Your task to perform on an android device: change alarm snooze length Image 0: 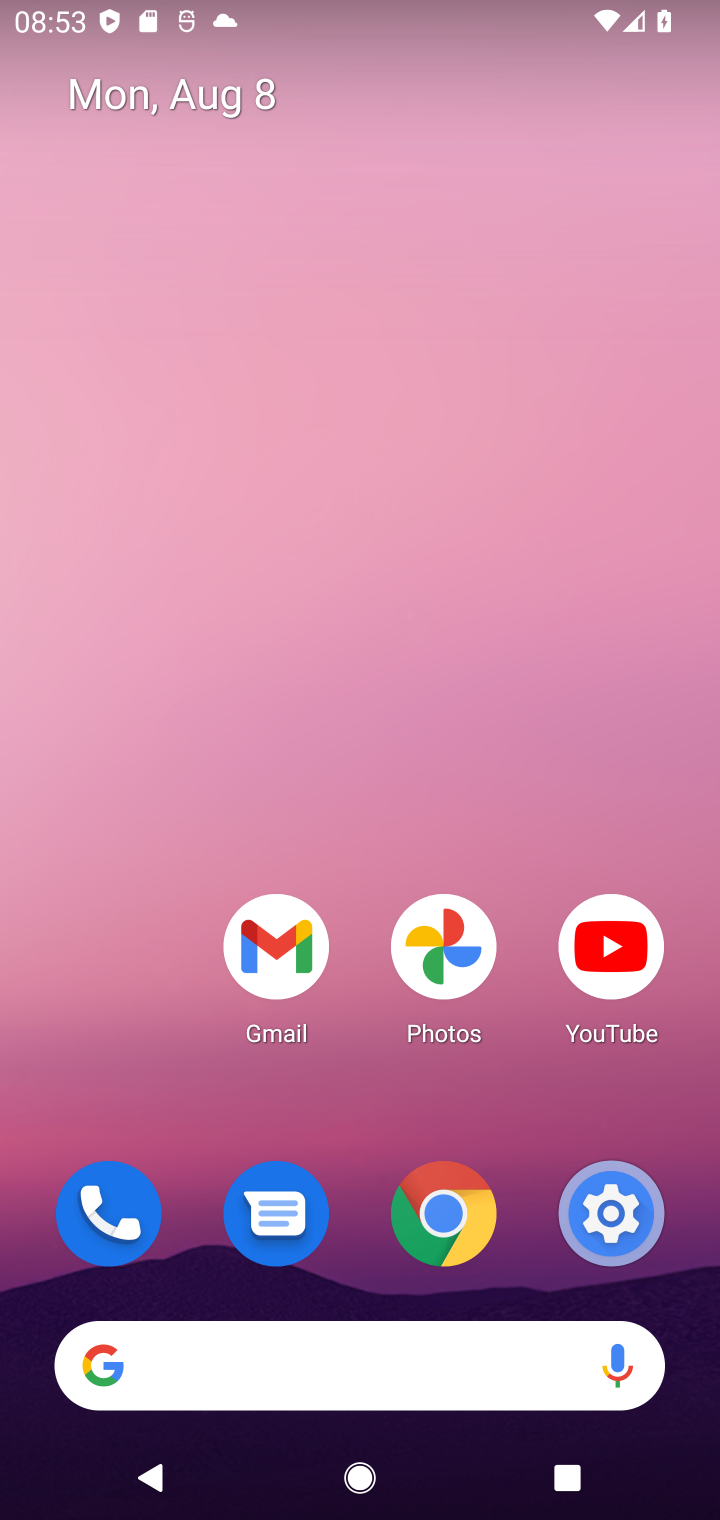
Step 0: drag from (340, 1128) to (335, 389)
Your task to perform on an android device: change alarm snooze length Image 1: 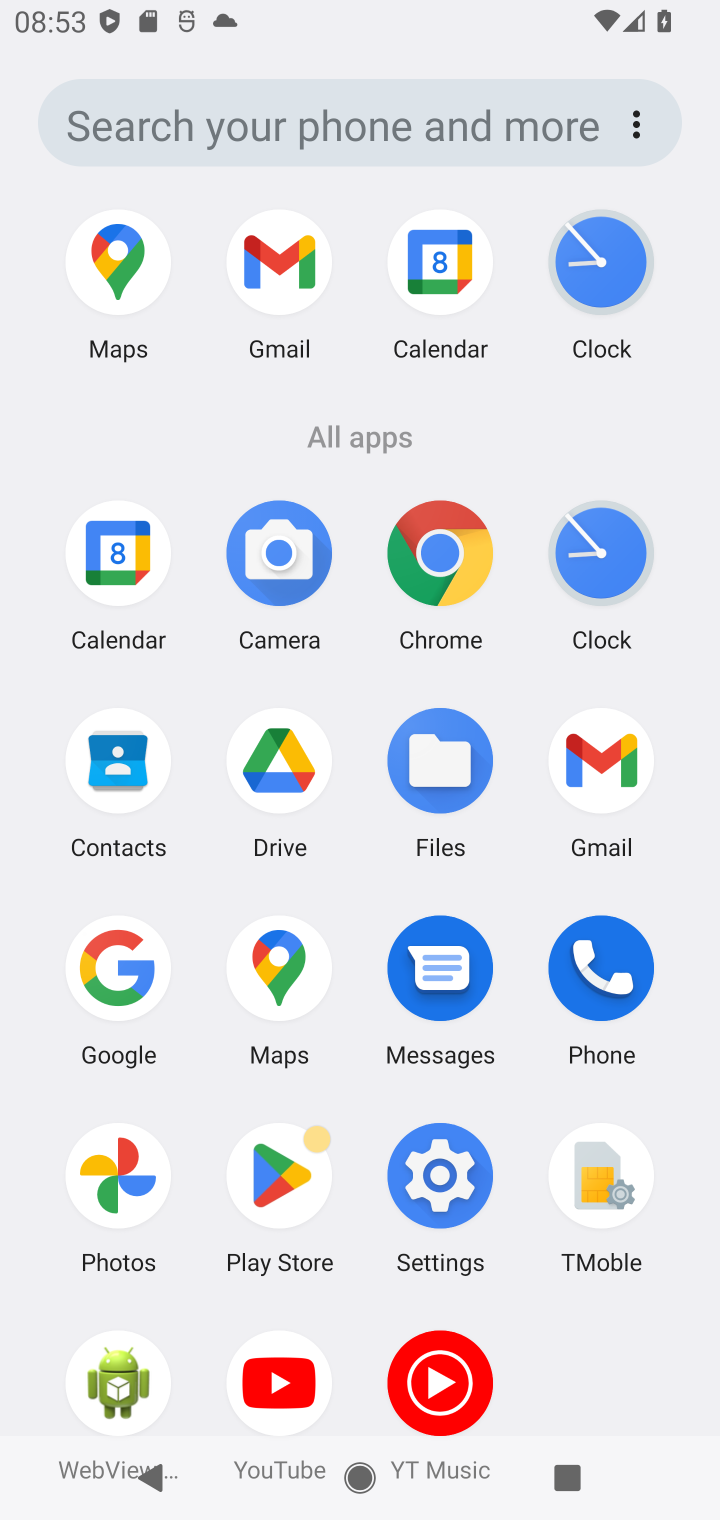
Step 1: click (618, 587)
Your task to perform on an android device: change alarm snooze length Image 2: 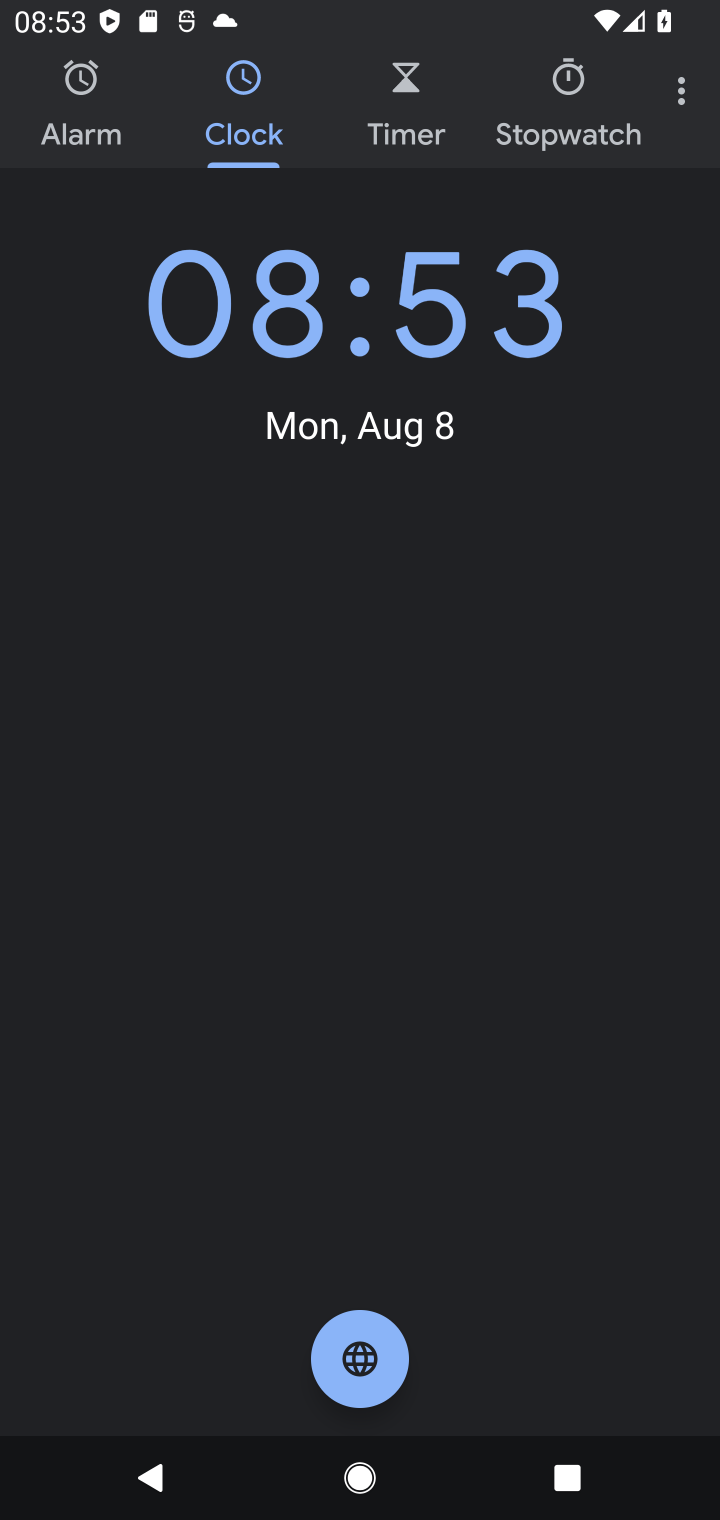
Step 2: click (677, 117)
Your task to perform on an android device: change alarm snooze length Image 3: 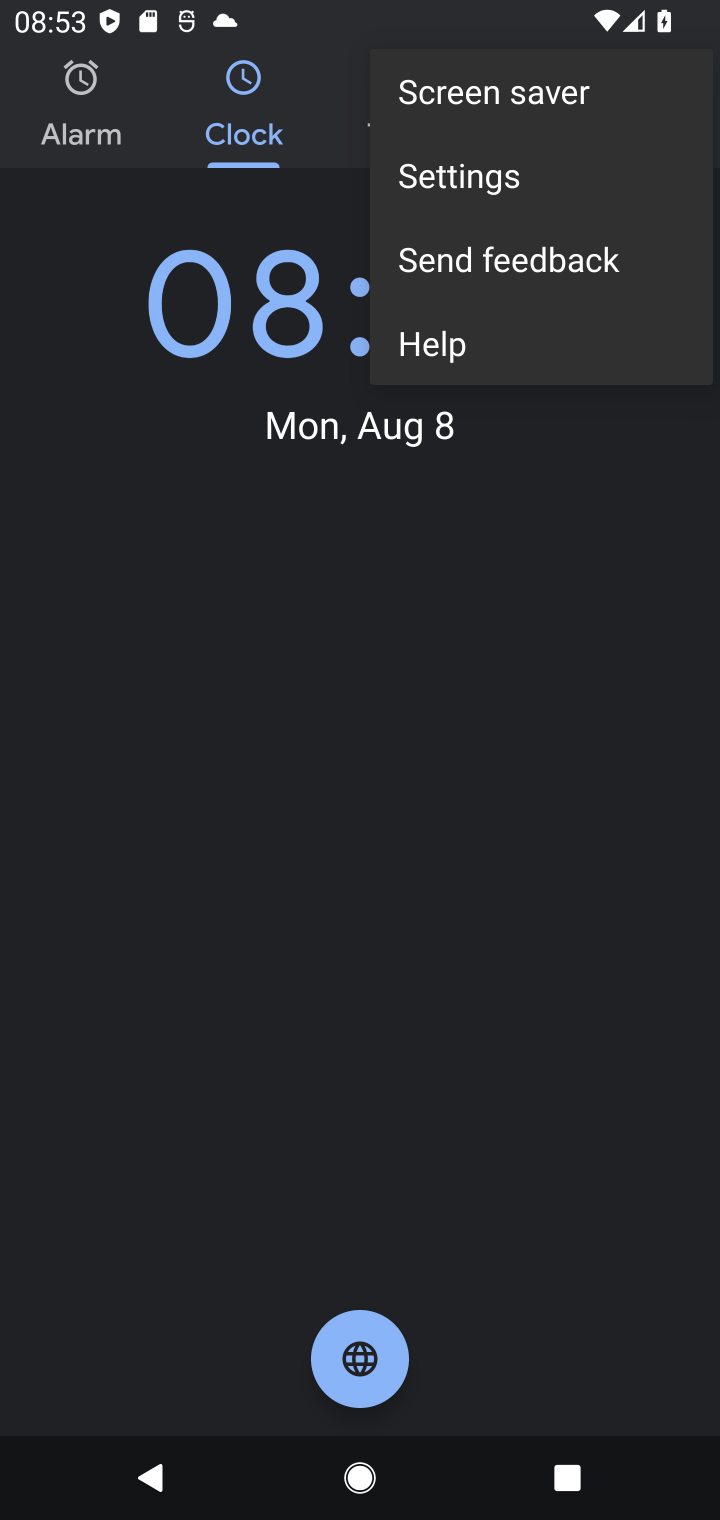
Step 3: click (530, 184)
Your task to perform on an android device: change alarm snooze length Image 4: 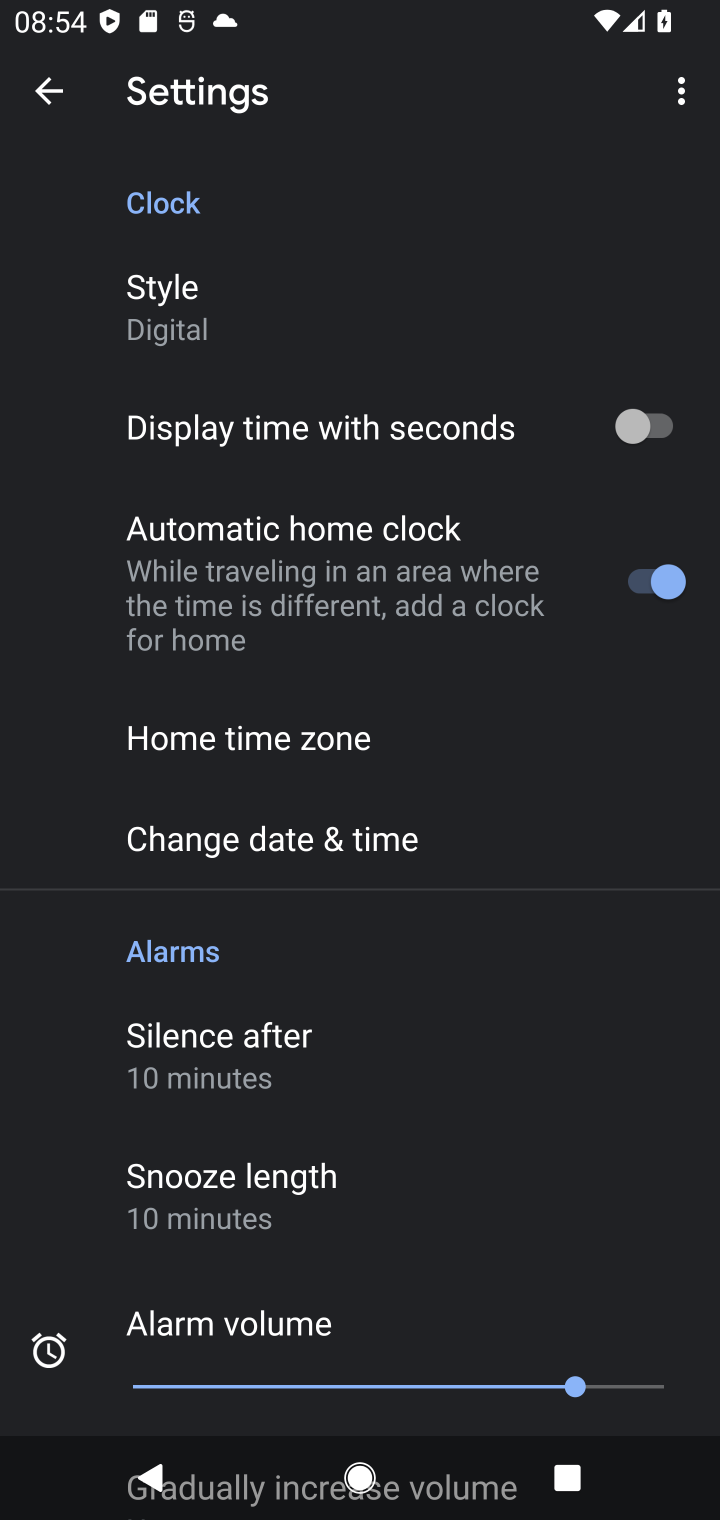
Step 4: click (356, 1226)
Your task to perform on an android device: change alarm snooze length Image 5: 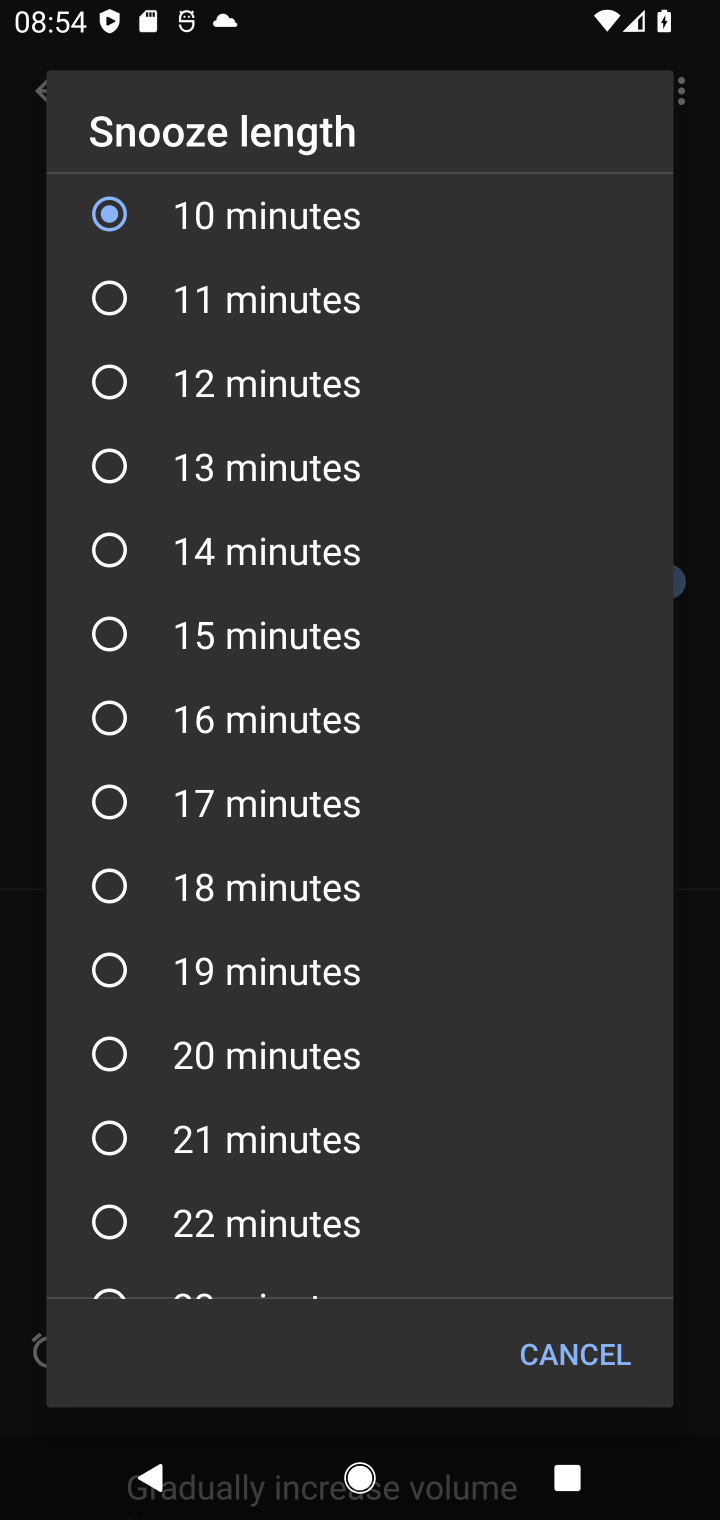
Step 5: click (319, 393)
Your task to perform on an android device: change alarm snooze length Image 6: 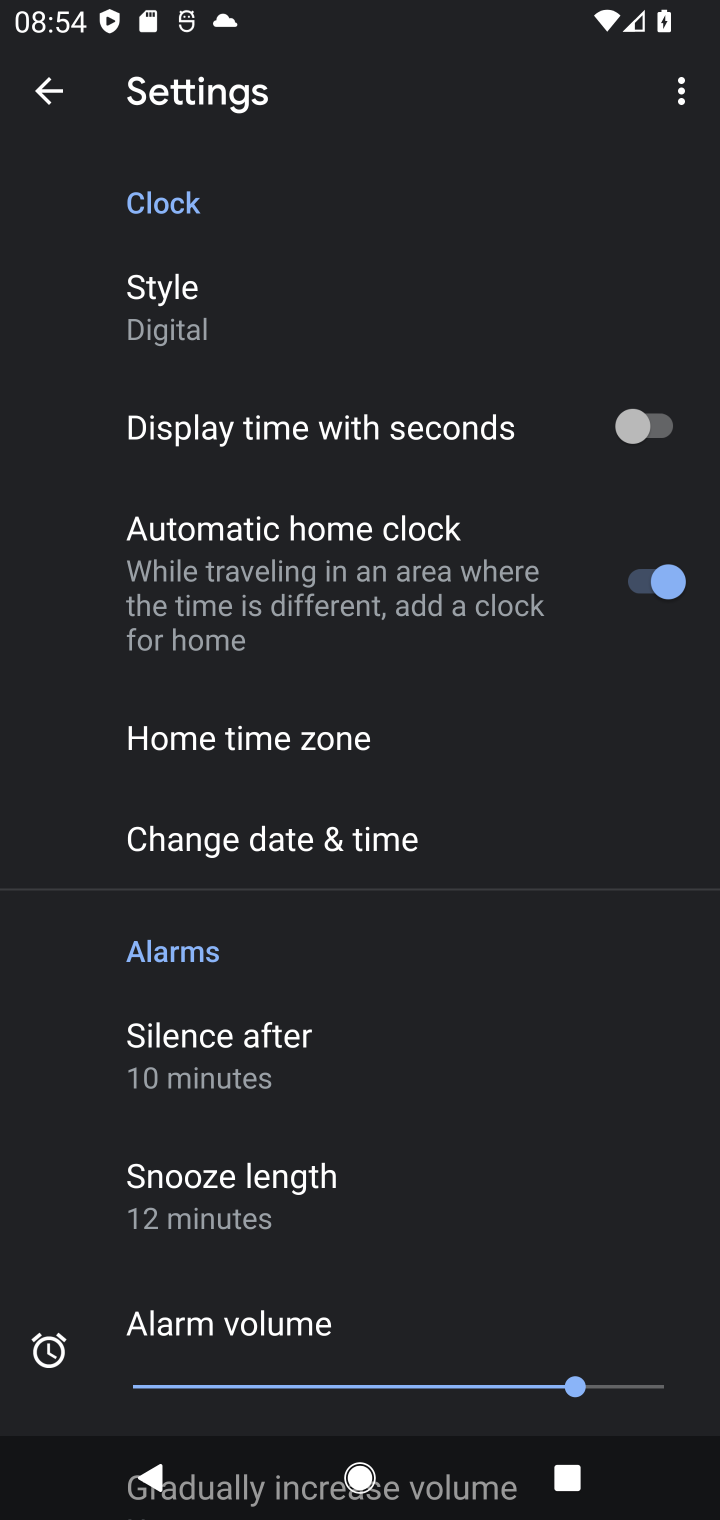
Step 6: task complete